Your task to perform on an android device: find which apps use the phone's location Image 0: 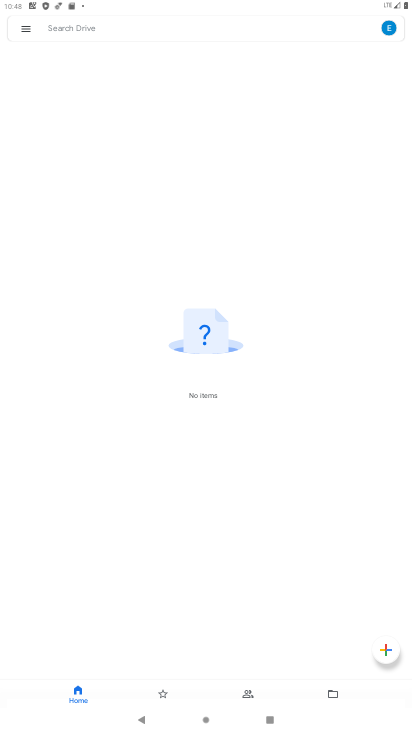
Step 0: press home button
Your task to perform on an android device: find which apps use the phone's location Image 1: 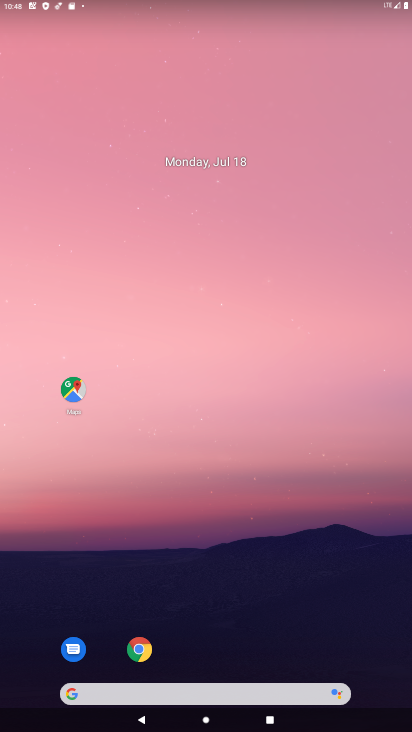
Step 1: drag from (175, 702) to (274, 195)
Your task to perform on an android device: find which apps use the phone's location Image 2: 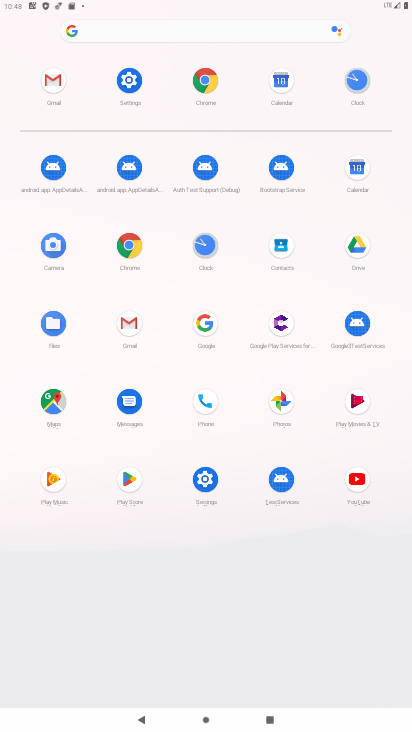
Step 2: click (124, 74)
Your task to perform on an android device: find which apps use the phone's location Image 3: 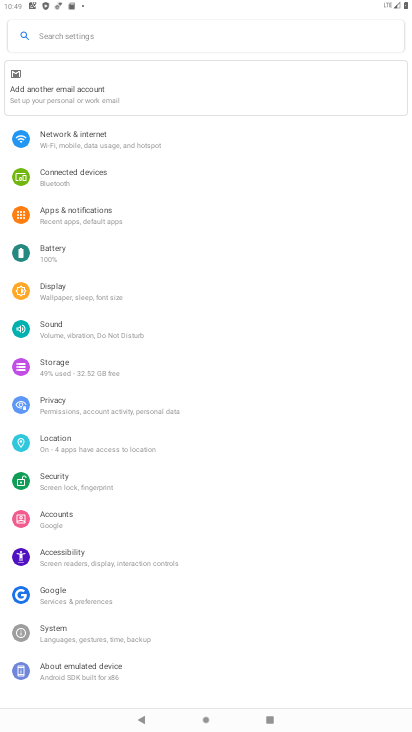
Step 3: click (81, 443)
Your task to perform on an android device: find which apps use the phone's location Image 4: 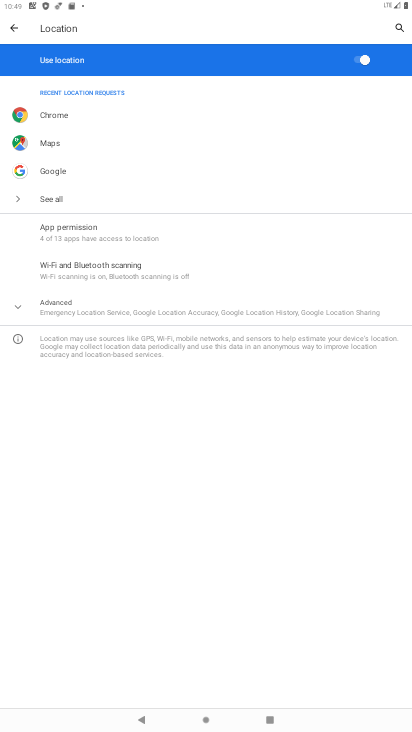
Step 4: click (71, 228)
Your task to perform on an android device: find which apps use the phone's location Image 5: 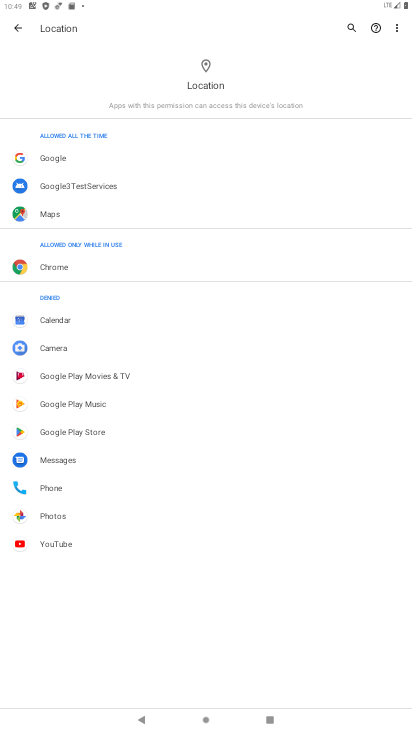
Step 5: task complete